Your task to perform on an android device: turn on the 24-hour format for clock Image 0: 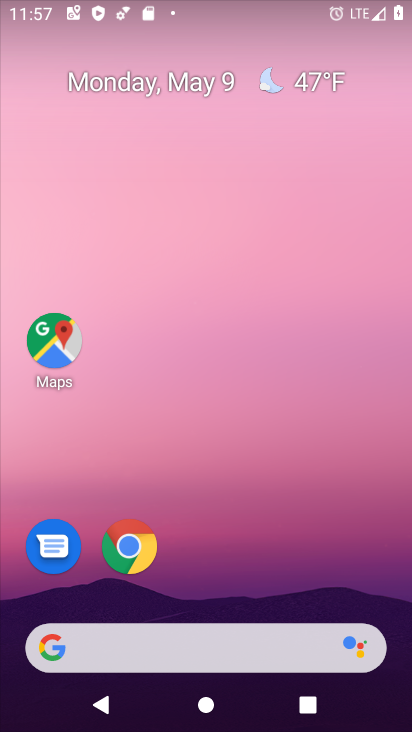
Step 0: drag from (311, 597) to (319, 89)
Your task to perform on an android device: turn on the 24-hour format for clock Image 1: 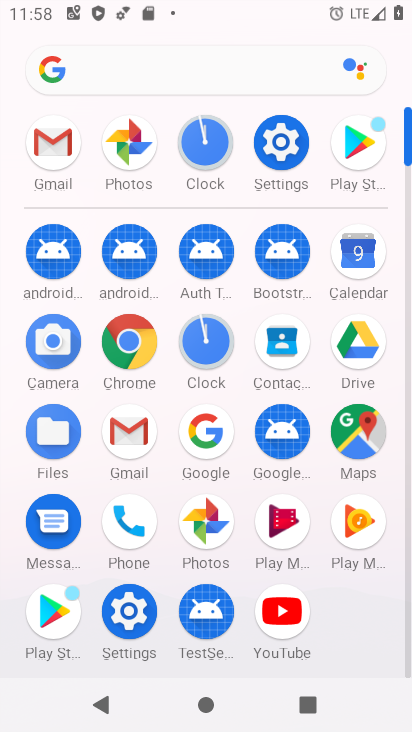
Step 1: click (207, 146)
Your task to perform on an android device: turn on the 24-hour format for clock Image 2: 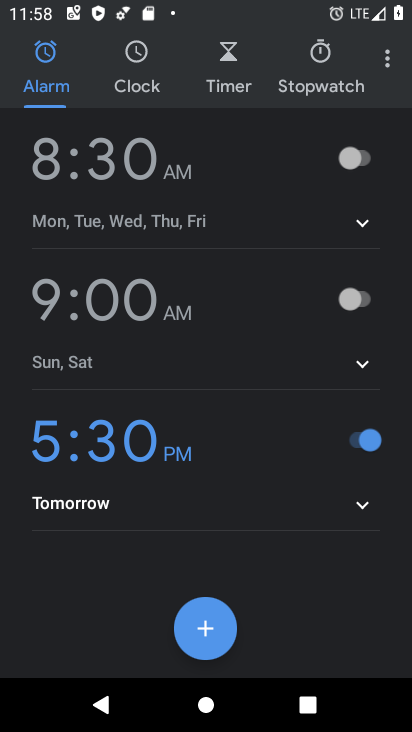
Step 2: click (387, 62)
Your task to perform on an android device: turn on the 24-hour format for clock Image 3: 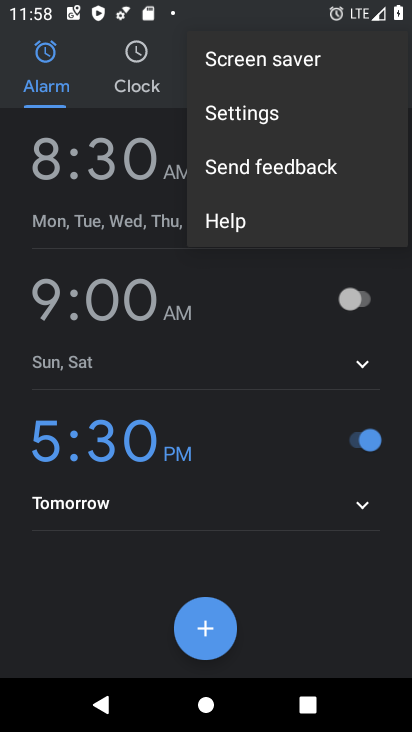
Step 3: click (236, 118)
Your task to perform on an android device: turn on the 24-hour format for clock Image 4: 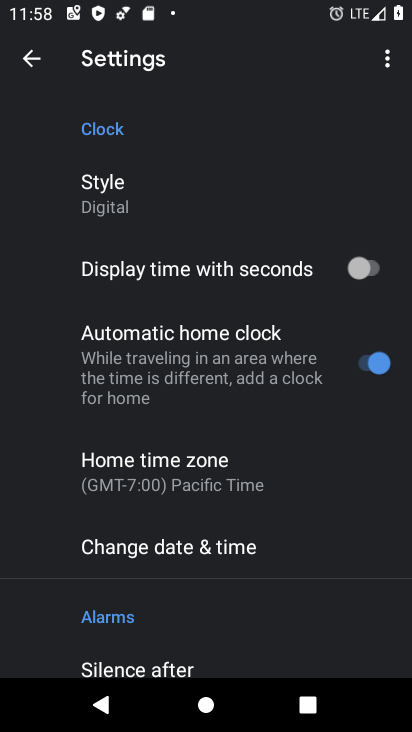
Step 4: click (212, 554)
Your task to perform on an android device: turn on the 24-hour format for clock Image 5: 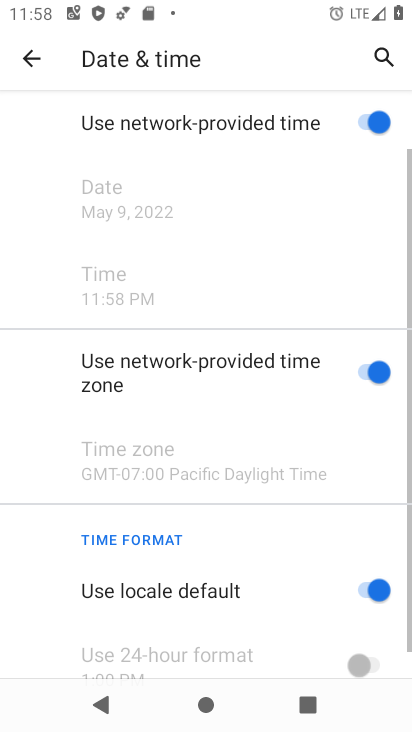
Step 5: drag from (212, 554) to (220, 199)
Your task to perform on an android device: turn on the 24-hour format for clock Image 6: 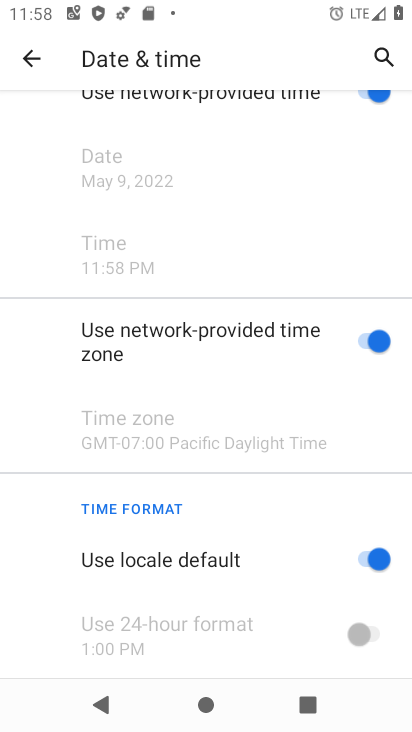
Step 6: click (362, 555)
Your task to perform on an android device: turn on the 24-hour format for clock Image 7: 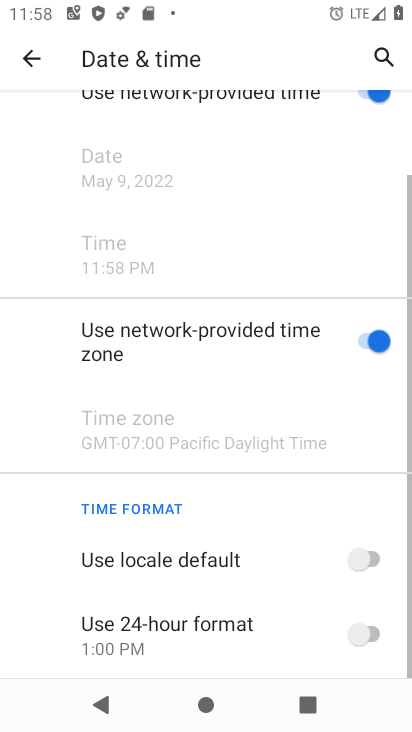
Step 7: click (351, 633)
Your task to perform on an android device: turn on the 24-hour format for clock Image 8: 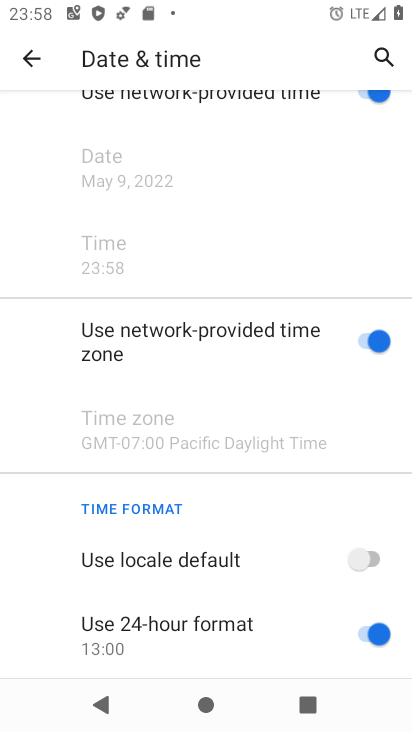
Step 8: task complete